Your task to perform on an android device: set default search engine in the chrome app Image 0: 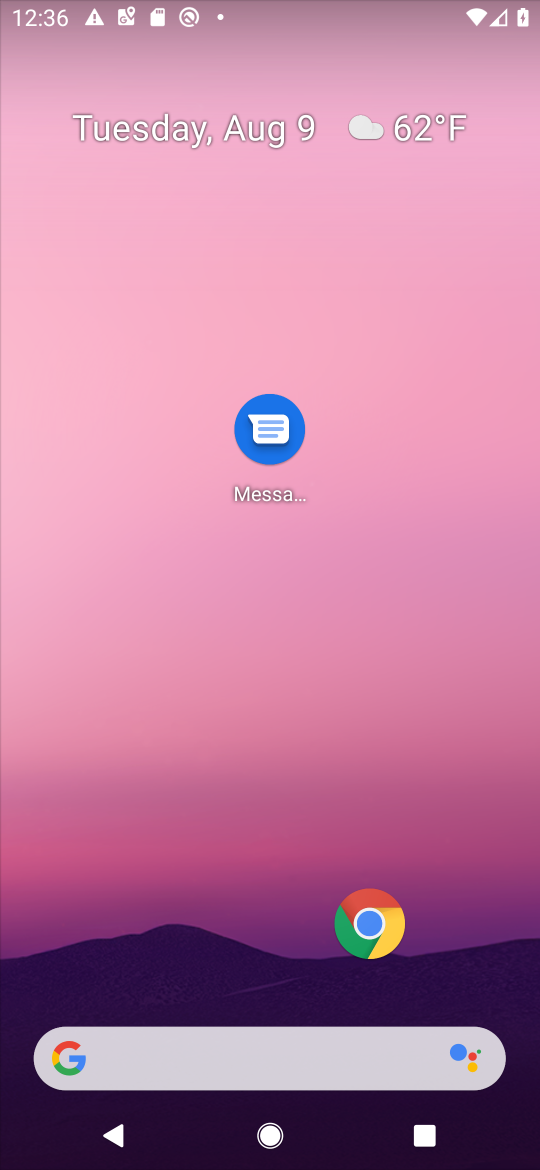
Step 0: click (374, 924)
Your task to perform on an android device: set default search engine in the chrome app Image 1: 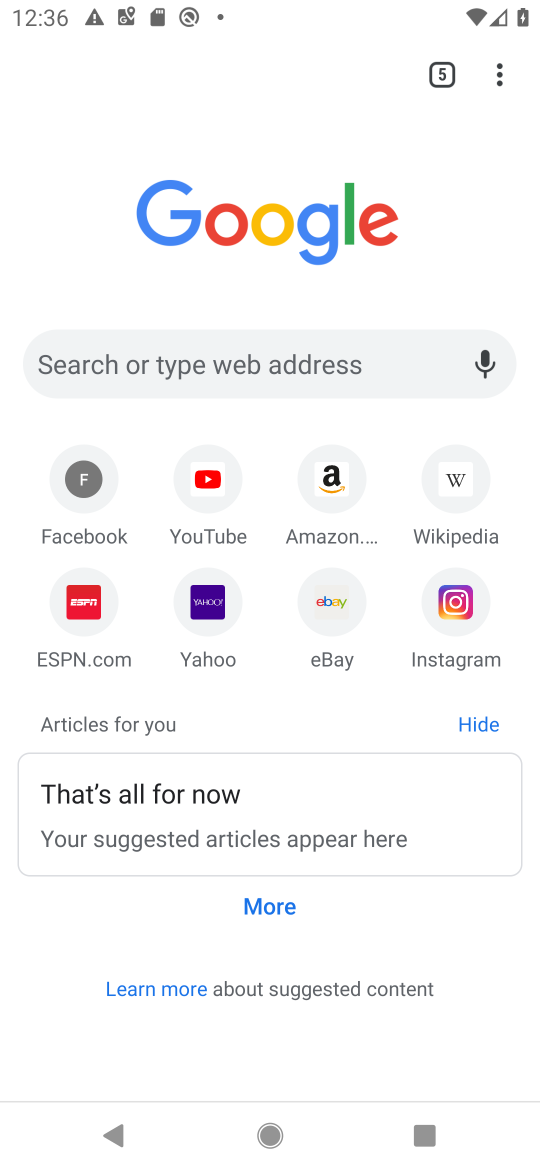
Step 1: click (505, 74)
Your task to perform on an android device: set default search engine in the chrome app Image 2: 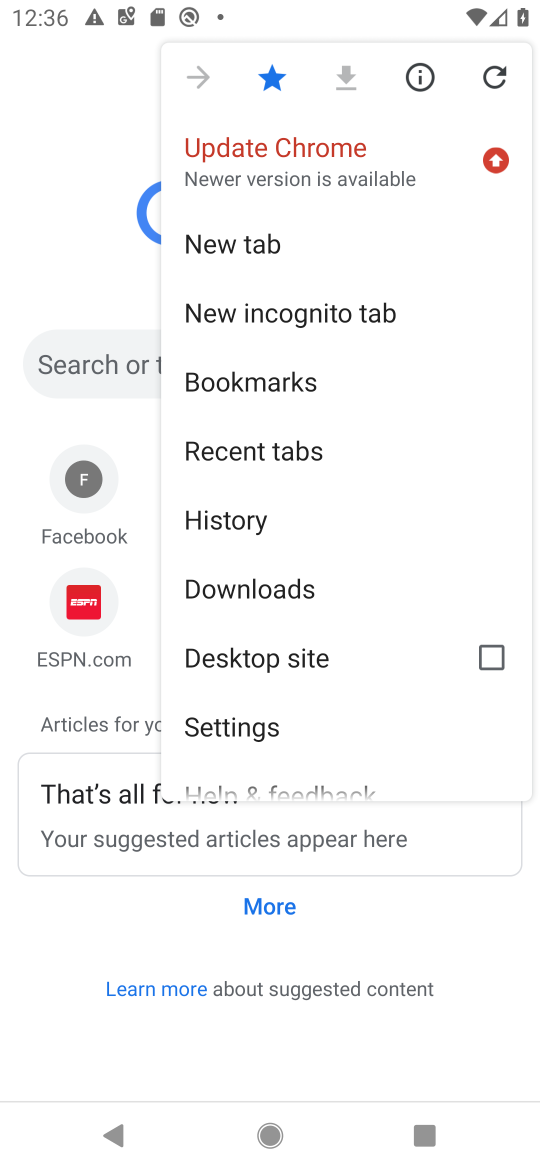
Step 2: click (241, 725)
Your task to perform on an android device: set default search engine in the chrome app Image 3: 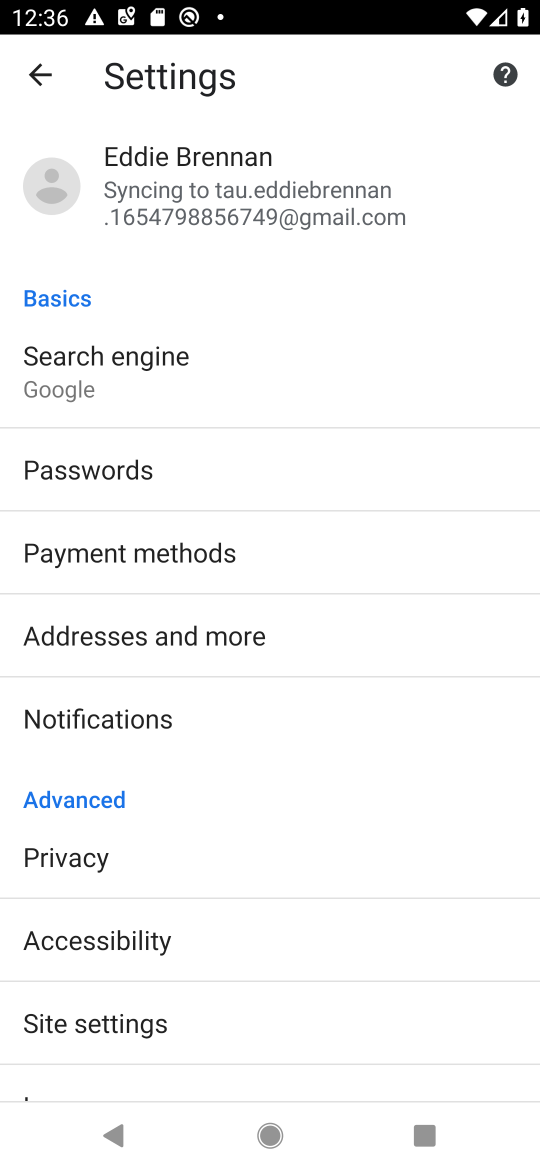
Step 3: task complete